Your task to perform on an android device: toggle notification dots Image 0: 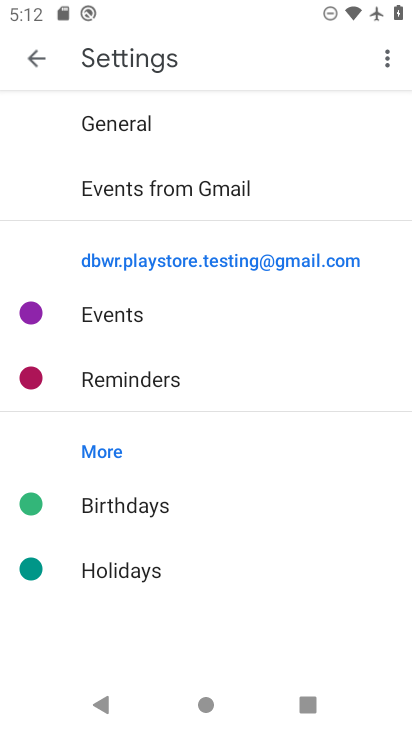
Step 0: press home button
Your task to perform on an android device: toggle notification dots Image 1: 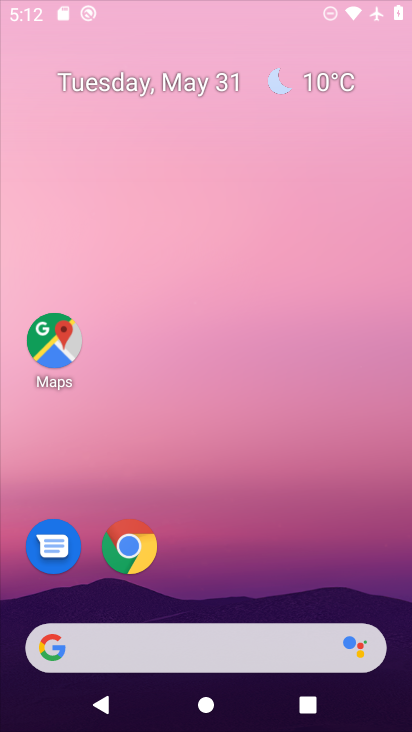
Step 1: drag from (260, 291) to (159, 10)
Your task to perform on an android device: toggle notification dots Image 2: 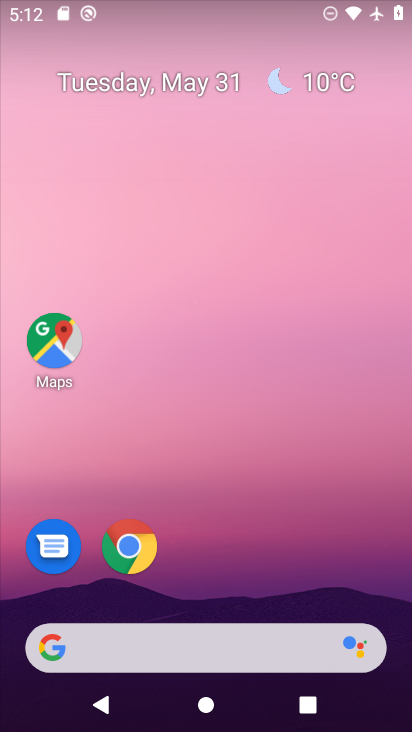
Step 2: drag from (218, 386) to (175, 9)
Your task to perform on an android device: toggle notification dots Image 3: 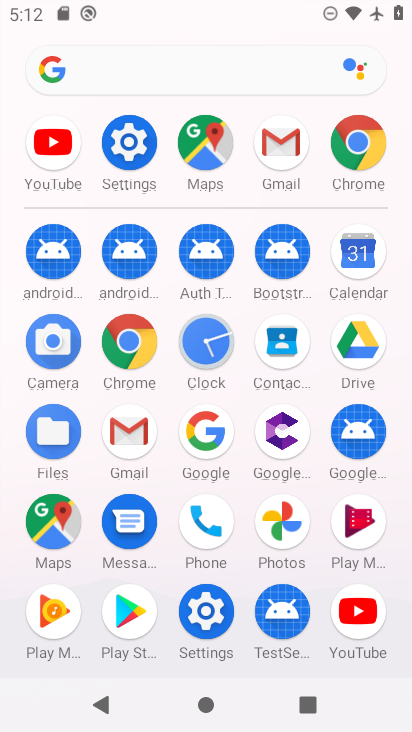
Step 3: click (137, 132)
Your task to perform on an android device: toggle notification dots Image 4: 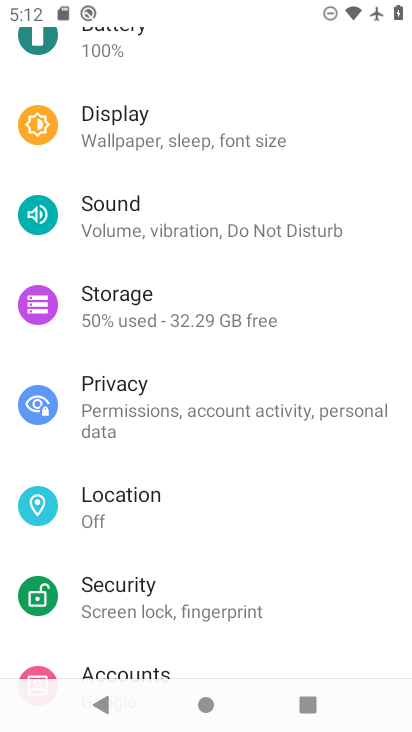
Step 4: drag from (211, 120) to (209, 605)
Your task to perform on an android device: toggle notification dots Image 5: 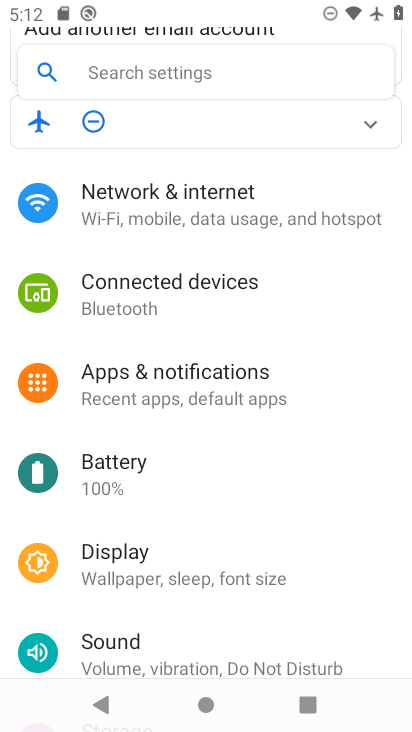
Step 5: click (171, 368)
Your task to perform on an android device: toggle notification dots Image 6: 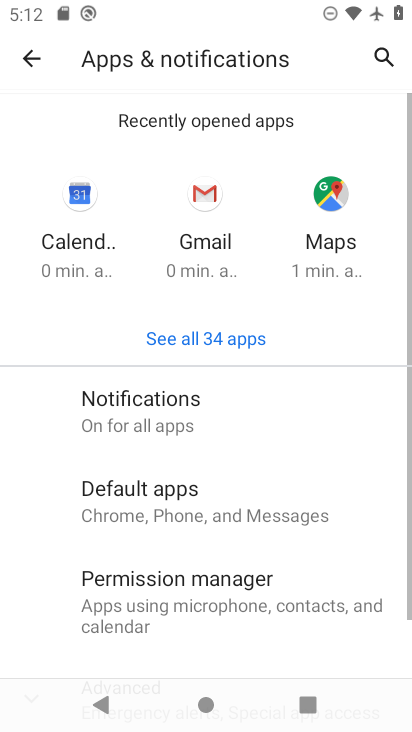
Step 6: click (207, 420)
Your task to perform on an android device: toggle notification dots Image 7: 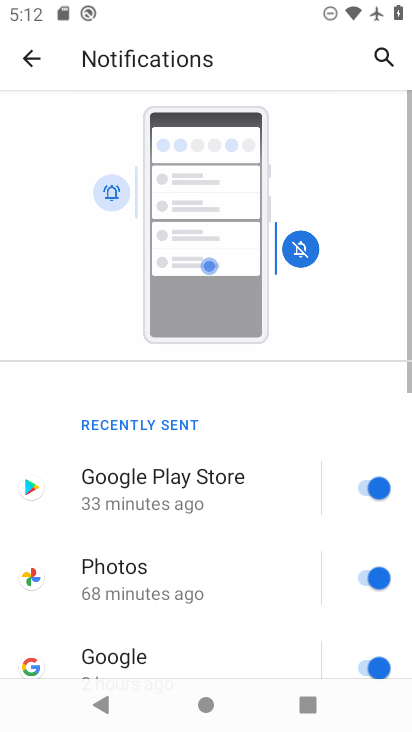
Step 7: drag from (230, 513) to (193, 60)
Your task to perform on an android device: toggle notification dots Image 8: 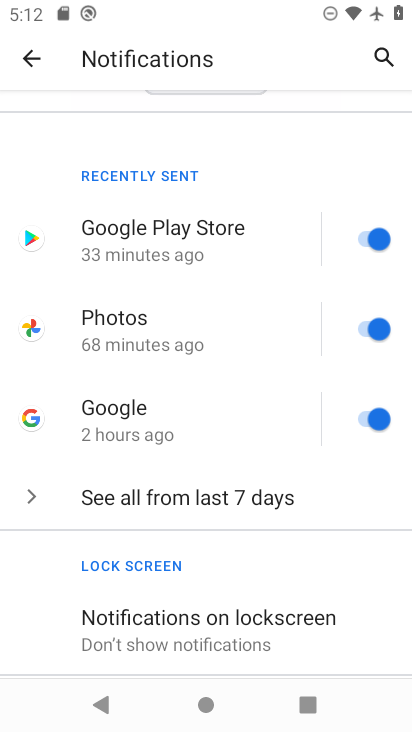
Step 8: drag from (223, 537) to (196, 105)
Your task to perform on an android device: toggle notification dots Image 9: 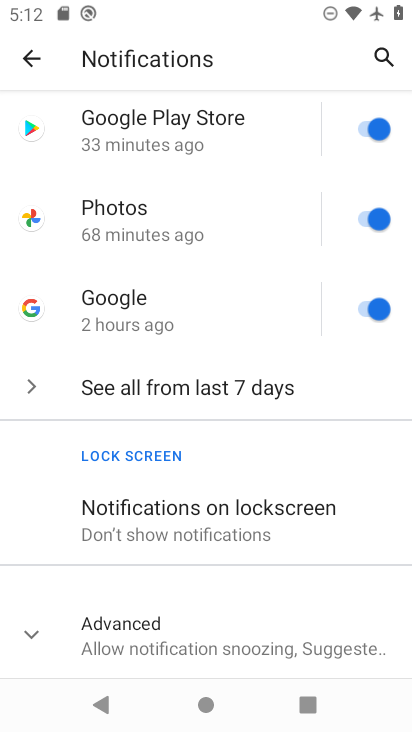
Step 9: click (224, 638)
Your task to perform on an android device: toggle notification dots Image 10: 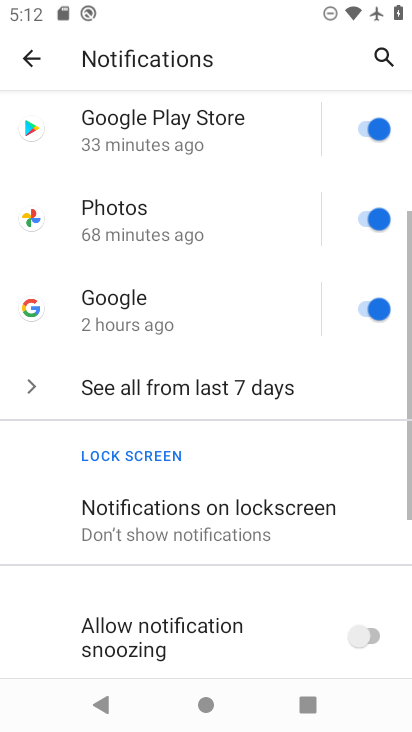
Step 10: drag from (261, 584) to (270, 148)
Your task to perform on an android device: toggle notification dots Image 11: 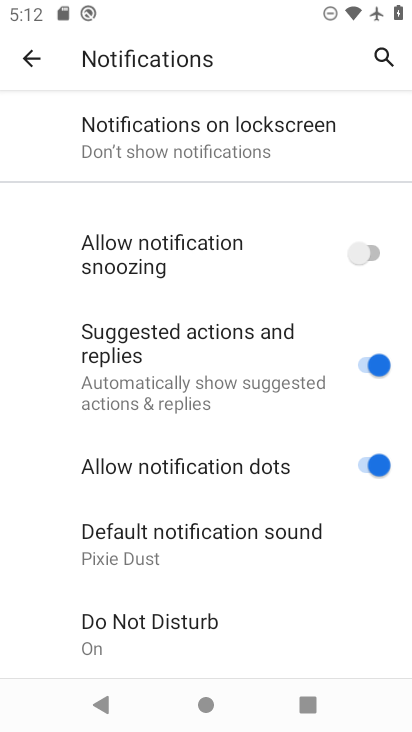
Step 11: click (382, 453)
Your task to perform on an android device: toggle notification dots Image 12: 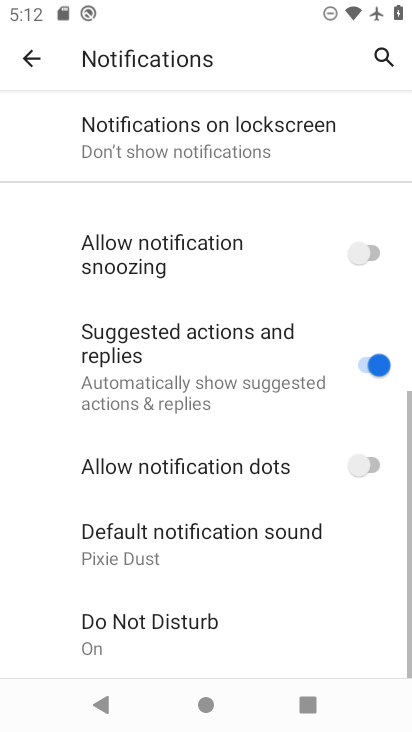
Step 12: task complete